Your task to perform on an android device: Open the calendar app, open the side menu, and click the "Day" option Image 0: 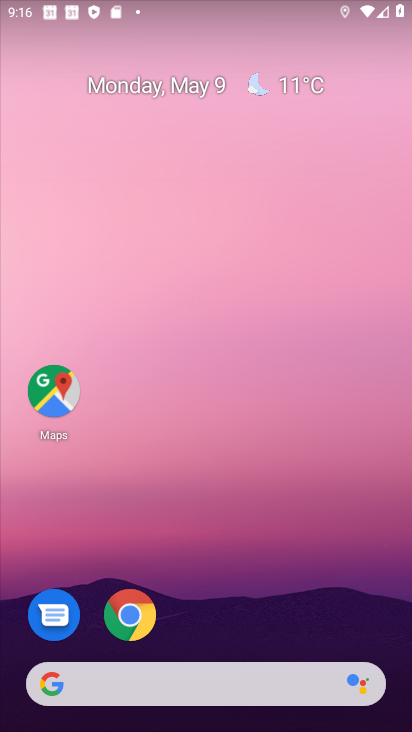
Step 0: drag from (269, 579) to (253, 101)
Your task to perform on an android device: Open the calendar app, open the side menu, and click the "Day" option Image 1: 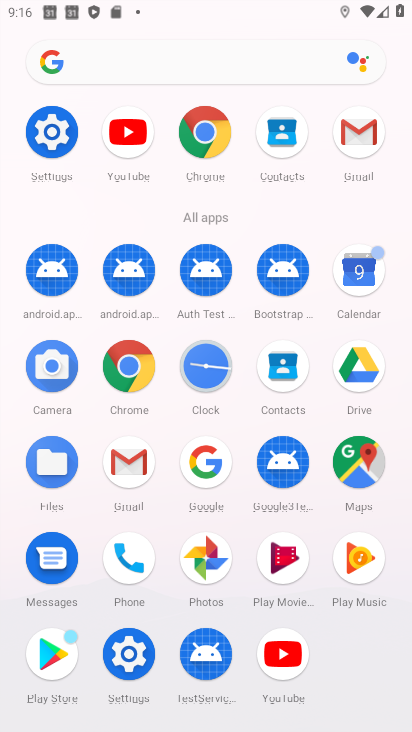
Step 1: click (357, 270)
Your task to perform on an android device: Open the calendar app, open the side menu, and click the "Day" option Image 2: 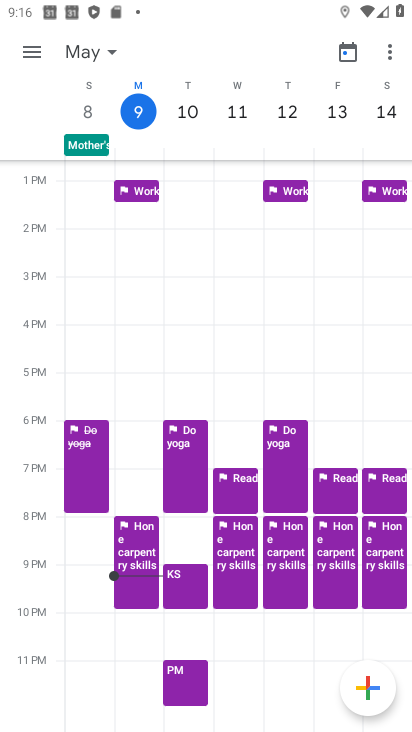
Step 2: click (22, 39)
Your task to perform on an android device: Open the calendar app, open the side menu, and click the "Day" option Image 3: 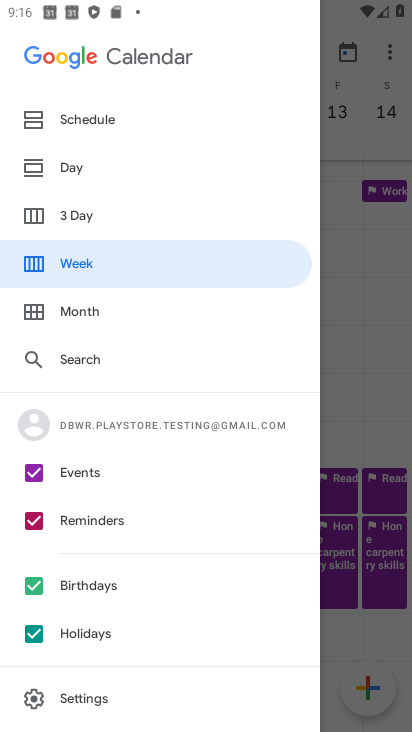
Step 3: click (77, 160)
Your task to perform on an android device: Open the calendar app, open the side menu, and click the "Day" option Image 4: 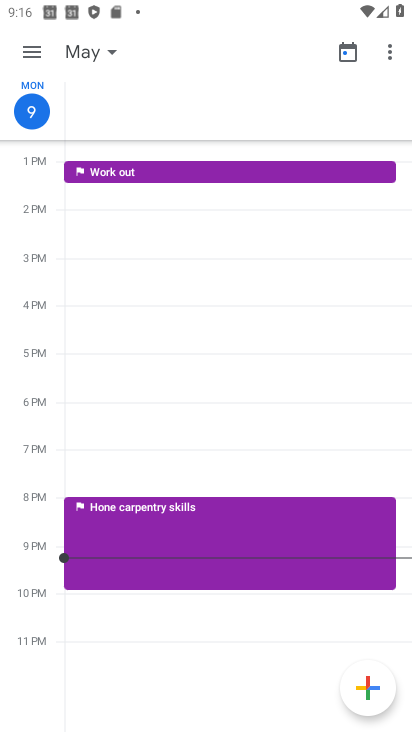
Step 4: task complete